Your task to perform on an android device: Open eBay Image 0: 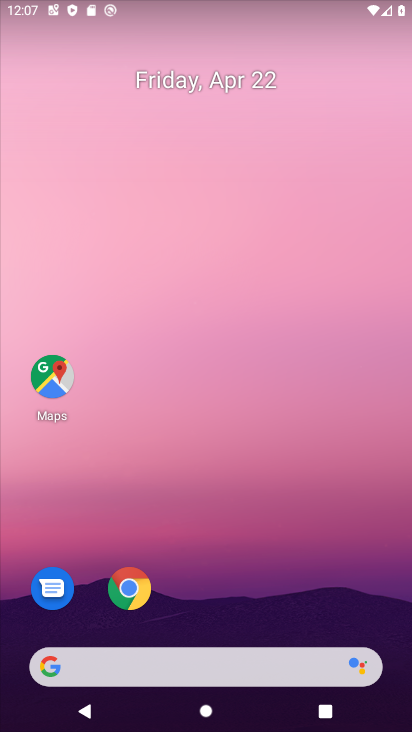
Step 0: drag from (226, 547) to (272, 90)
Your task to perform on an android device: Open eBay Image 1: 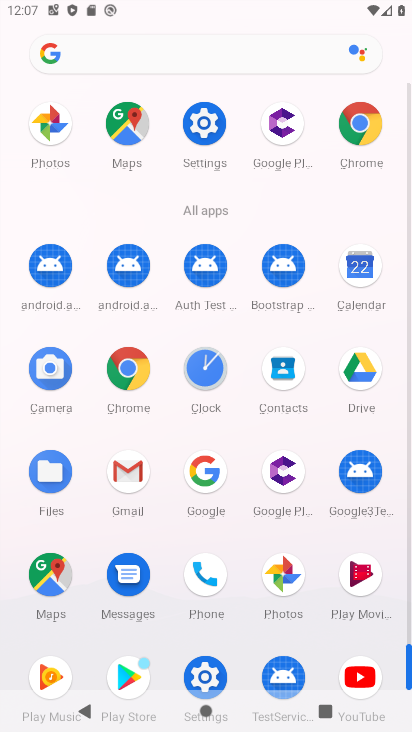
Step 1: click (126, 352)
Your task to perform on an android device: Open eBay Image 2: 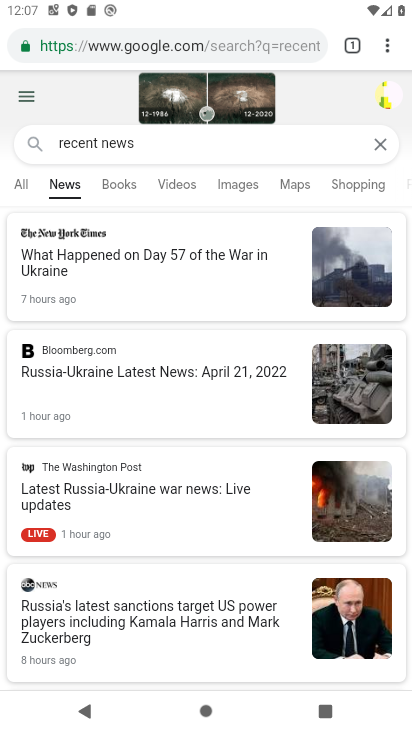
Step 2: click (379, 142)
Your task to perform on an android device: Open eBay Image 3: 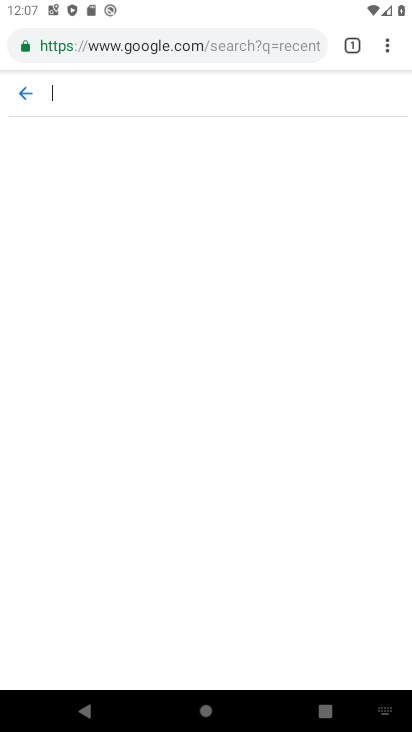
Step 3: click (180, 74)
Your task to perform on an android device: Open eBay Image 4: 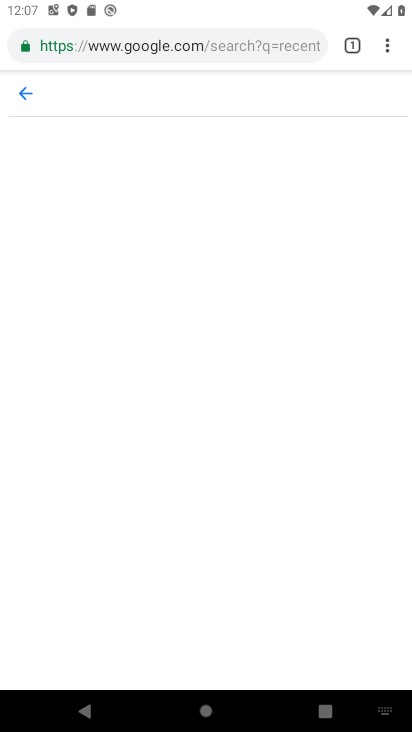
Step 4: type " eBay"
Your task to perform on an android device: Open eBay Image 5: 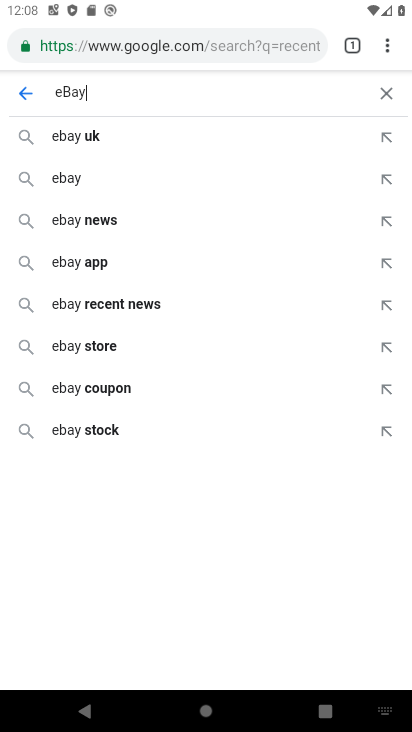
Step 5: click (69, 175)
Your task to perform on an android device: Open eBay Image 6: 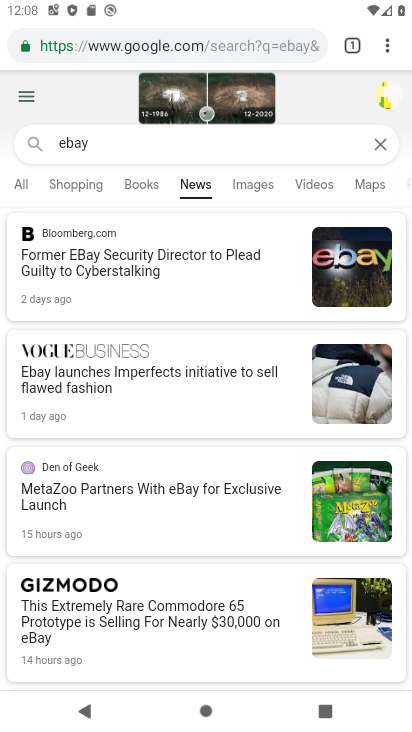
Step 6: click (15, 179)
Your task to perform on an android device: Open eBay Image 7: 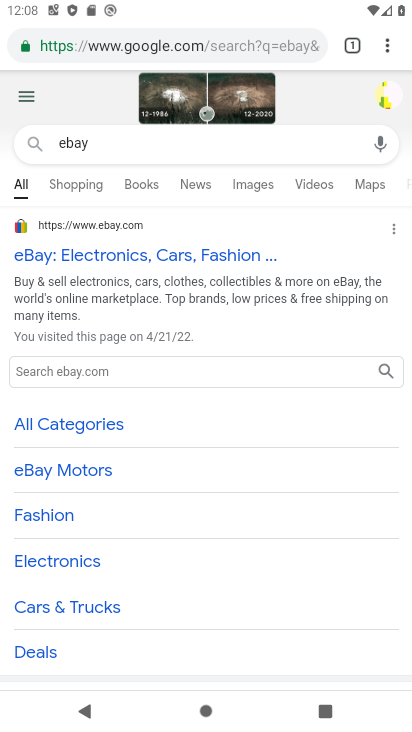
Step 7: click (182, 252)
Your task to perform on an android device: Open eBay Image 8: 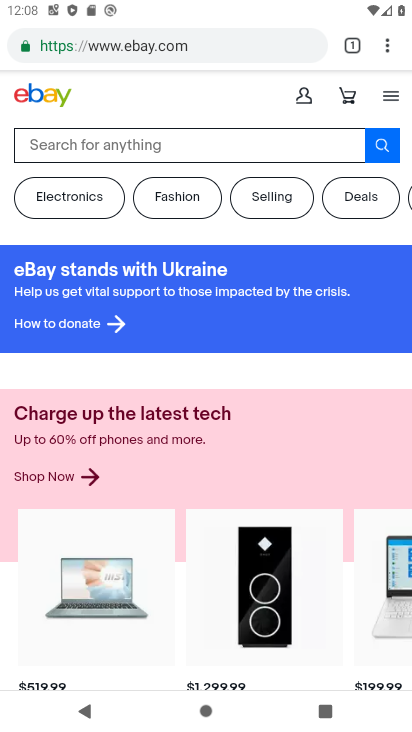
Step 8: task complete